Your task to perform on an android device: turn notification dots off Image 0: 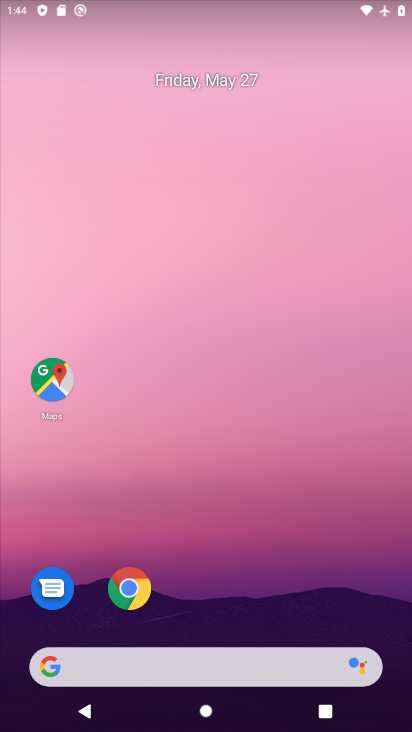
Step 0: drag from (400, 619) to (317, 11)
Your task to perform on an android device: turn notification dots off Image 1: 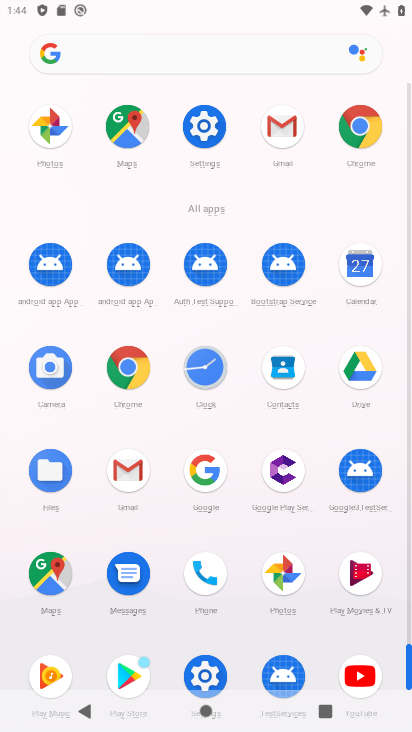
Step 1: click (204, 671)
Your task to perform on an android device: turn notification dots off Image 2: 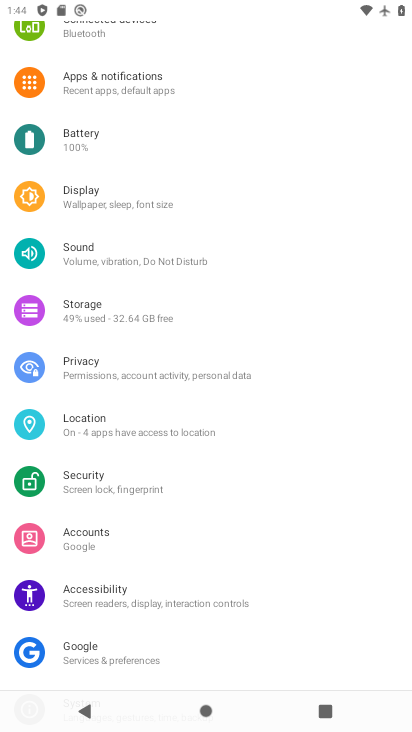
Step 2: click (102, 78)
Your task to perform on an android device: turn notification dots off Image 3: 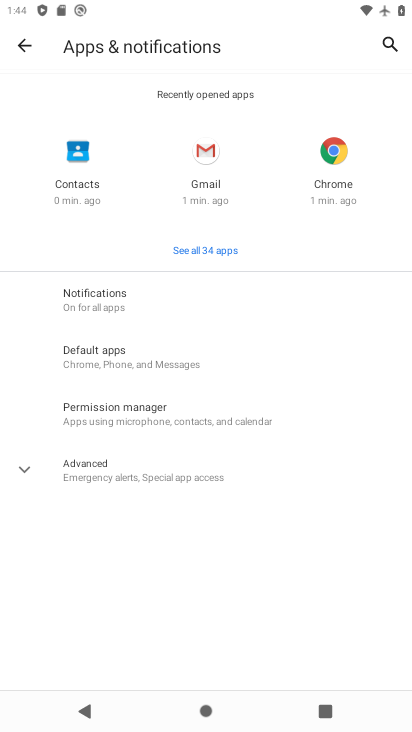
Step 3: click (114, 289)
Your task to perform on an android device: turn notification dots off Image 4: 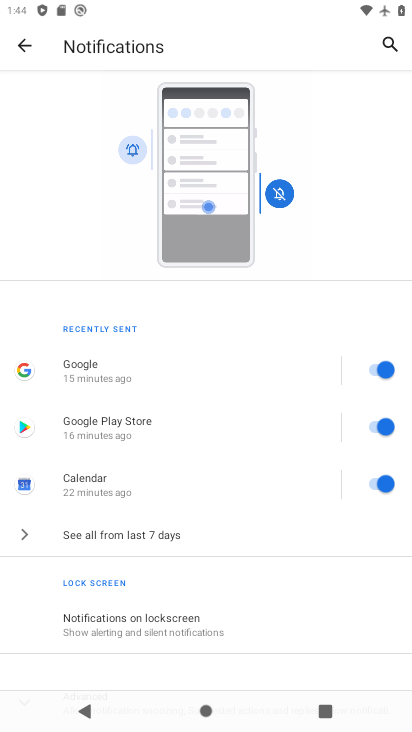
Step 4: drag from (213, 614) to (234, 173)
Your task to perform on an android device: turn notification dots off Image 5: 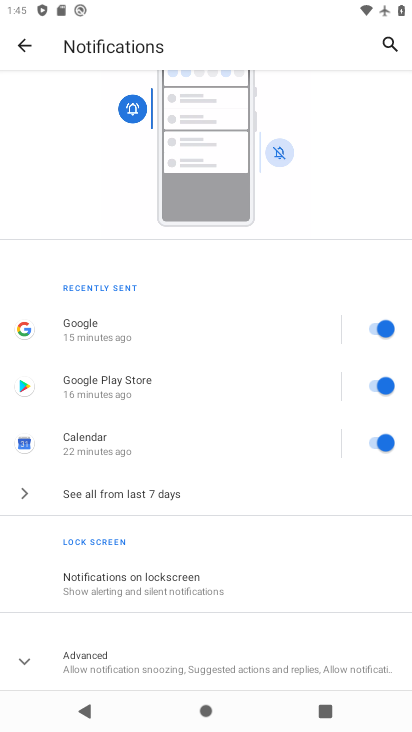
Step 5: click (25, 662)
Your task to perform on an android device: turn notification dots off Image 6: 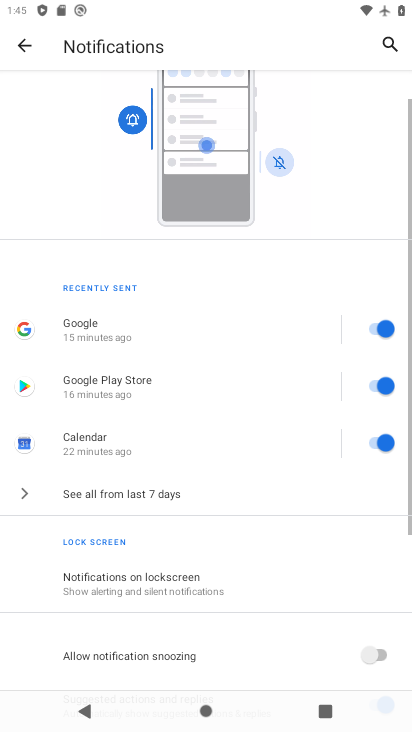
Step 6: drag from (322, 609) to (266, 156)
Your task to perform on an android device: turn notification dots off Image 7: 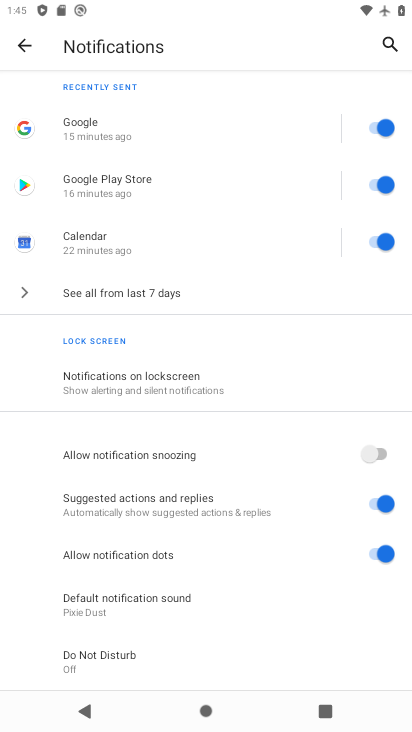
Step 7: click (374, 548)
Your task to perform on an android device: turn notification dots off Image 8: 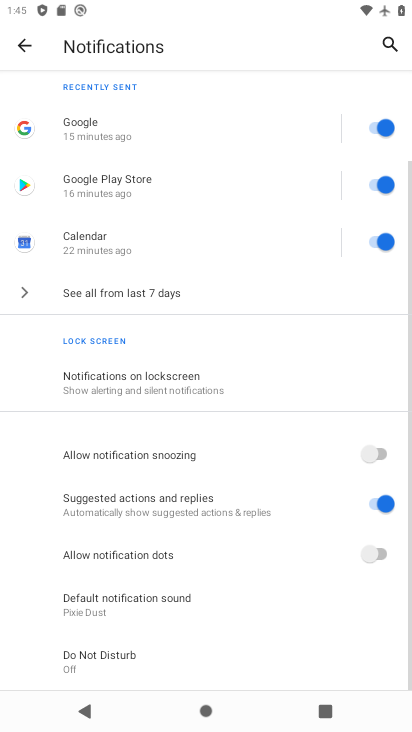
Step 8: task complete